Your task to perform on an android device: turn on sleep mode Image 0: 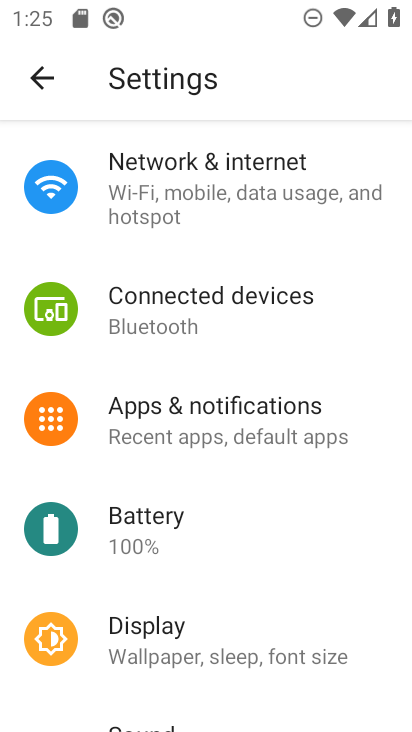
Step 0: drag from (249, 502) to (258, 384)
Your task to perform on an android device: turn on sleep mode Image 1: 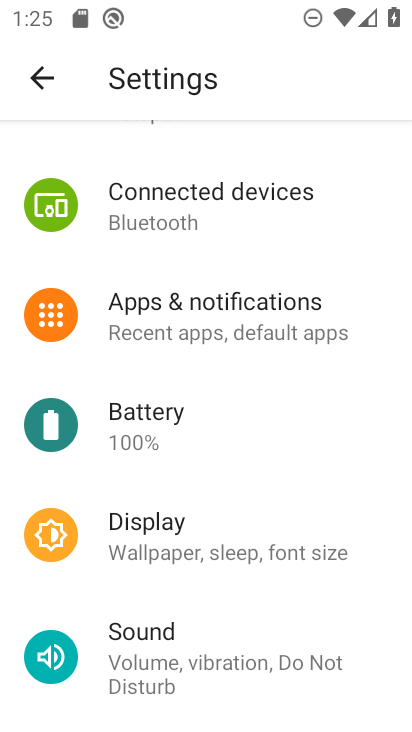
Step 1: click (257, 539)
Your task to perform on an android device: turn on sleep mode Image 2: 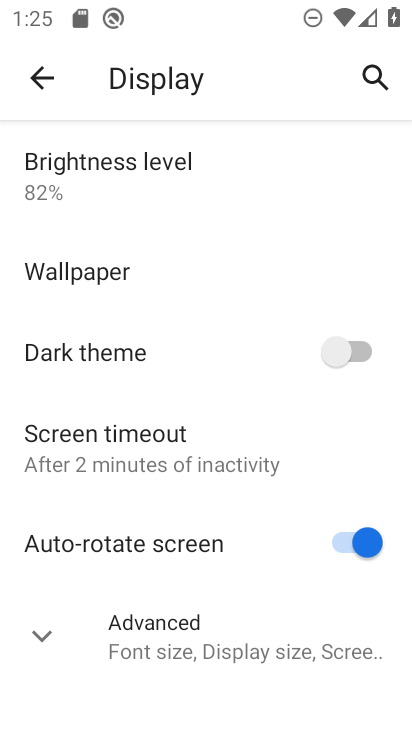
Step 2: click (90, 267)
Your task to perform on an android device: turn on sleep mode Image 3: 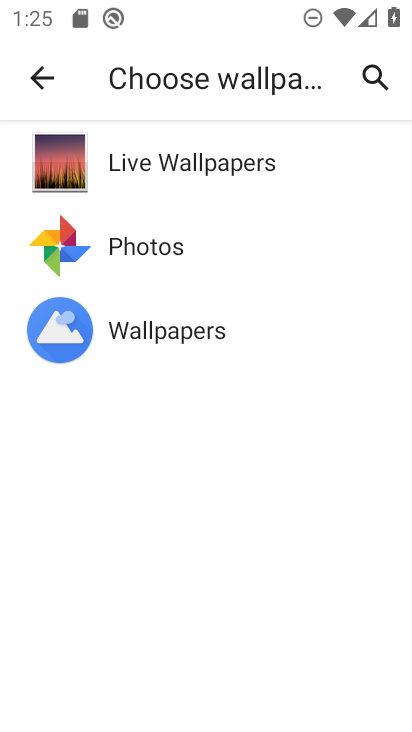
Step 3: press back button
Your task to perform on an android device: turn on sleep mode Image 4: 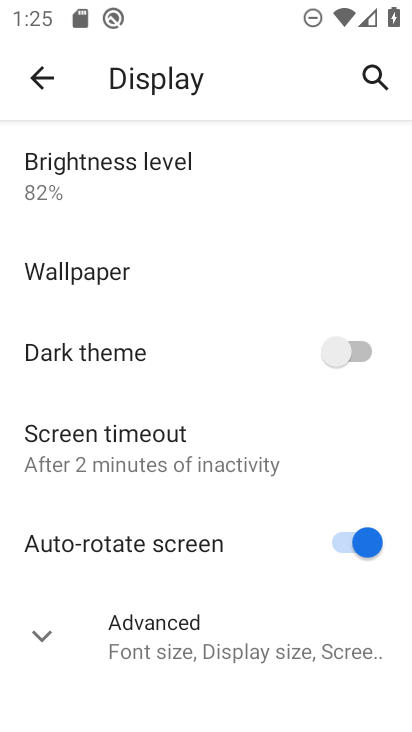
Step 4: click (54, 349)
Your task to perform on an android device: turn on sleep mode Image 5: 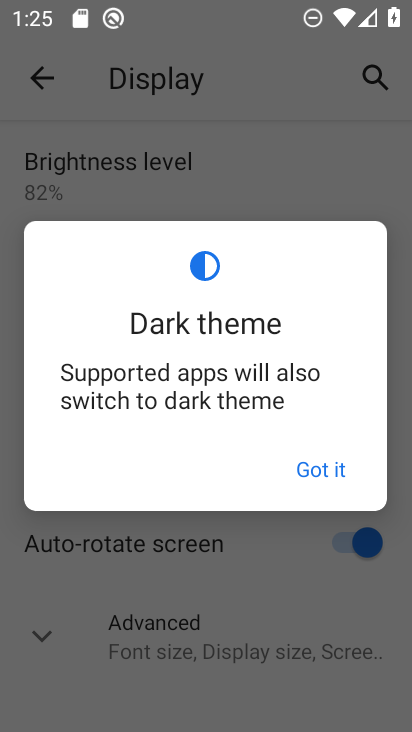
Step 5: click (329, 466)
Your task to perform on an android device: turn on sleep mode Image 6: 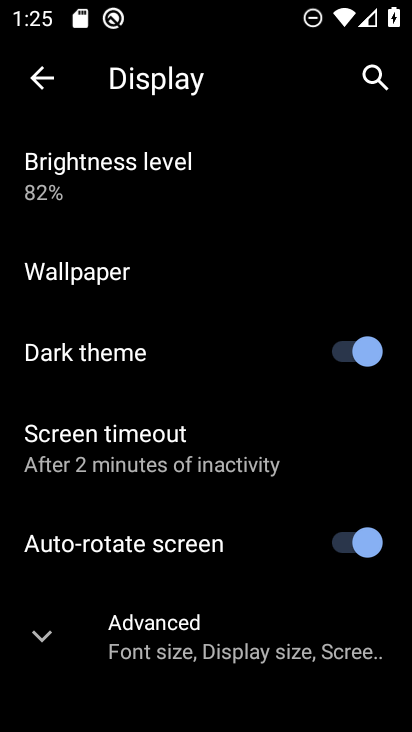
Step 6: drag from (118, 485) to (178, 388)
Your task to perform on an android device: turn on sleep mode Image 7: 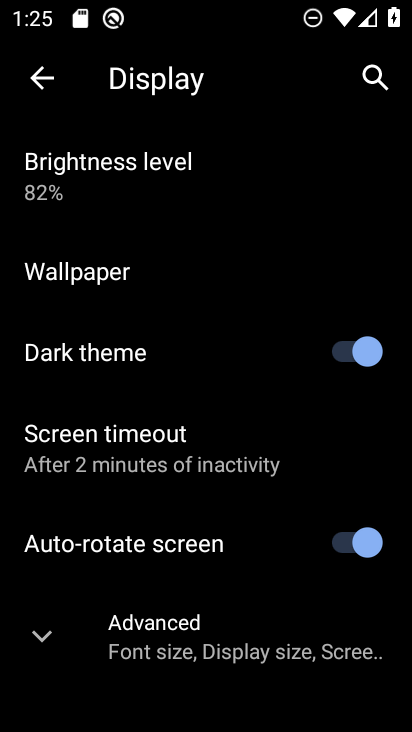
Step 7: click (143, 431)
Your task to perform on an android device: turn on sleep mode Image 8: 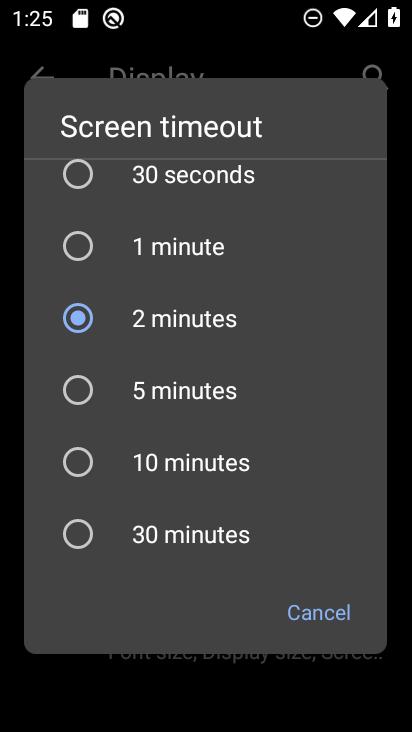
Step 8: click (323, 608)
Your task to perform on an android device: turn on sleep mode Image 9: 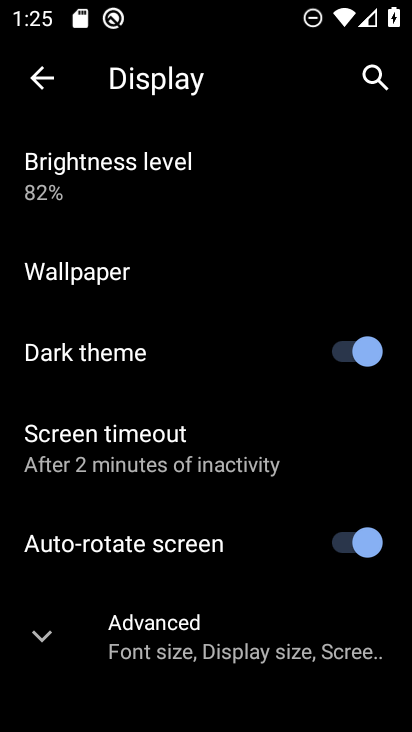
Step 9: click (41, 638)
Your task to perform on an android device: turn on sleep mode Image 10: 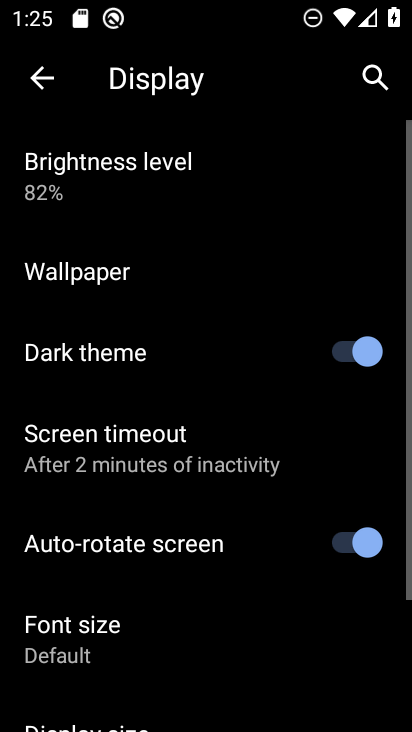
Step 10: drag from (138, 617) to (188, 484)
Your task to perform on an android device: turn on sleep mode Image 11: 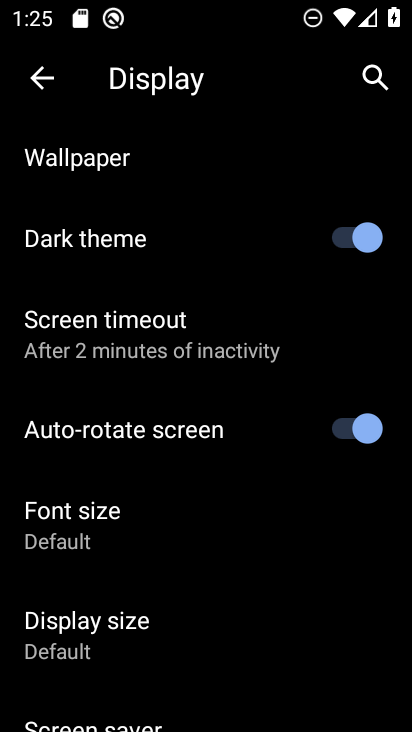
Step 11: drag from (145, 607) to (215, 475)
Your task to perform on an android device: turn on sleep mode Image 12: 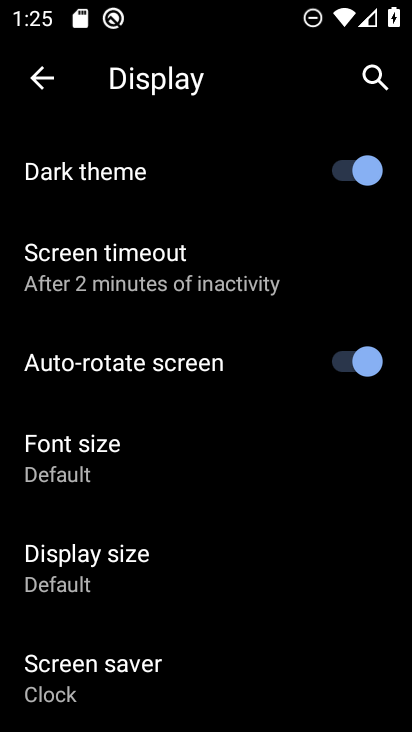
Step 12: click (146, 663)
Your task to perform on an android device: turn on sleep mode Image 13: 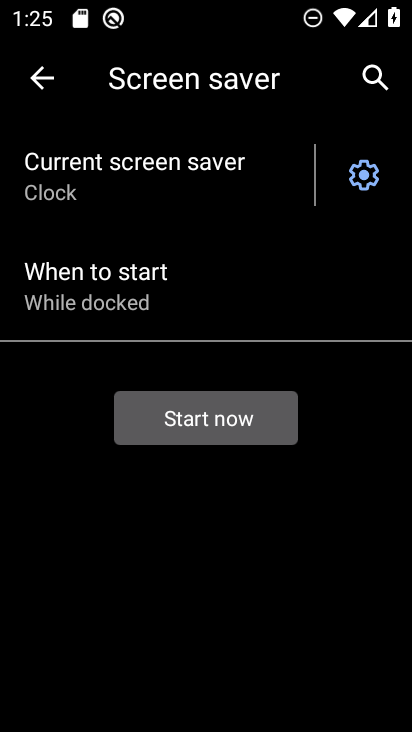
Step 13: click (152, 275)
Your task to perform on an android device: turn on sleep mode Image 14: 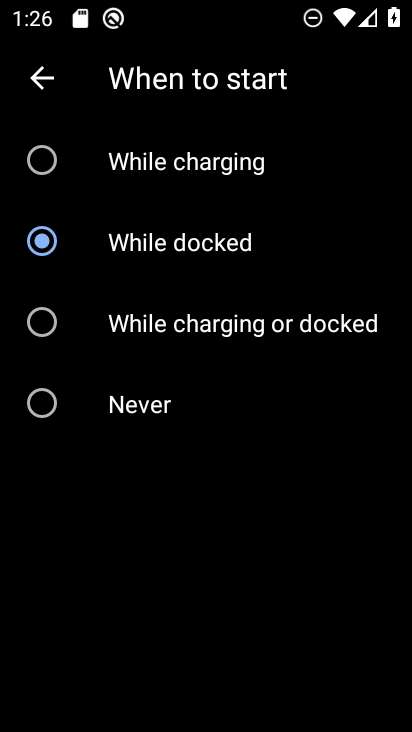
Step 14: task complete